Your task to perform on an android device: Open settings on Google Maps Image 0: 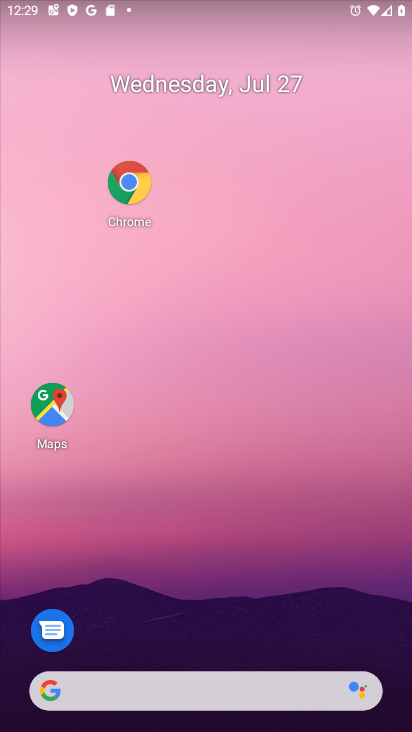
Step 0: click (51, 419)
Your task to perform on an android device: Open settings on Google Maps Image 1: 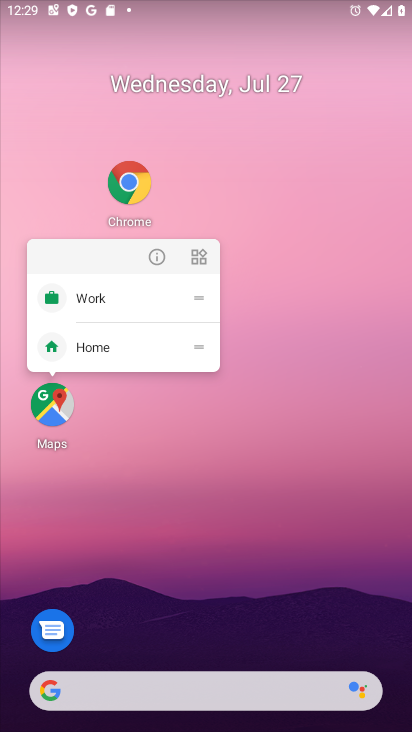
Step 1: click (51, 419)
Your task to perform on an android device: Open settings on Google Maps Image 2: 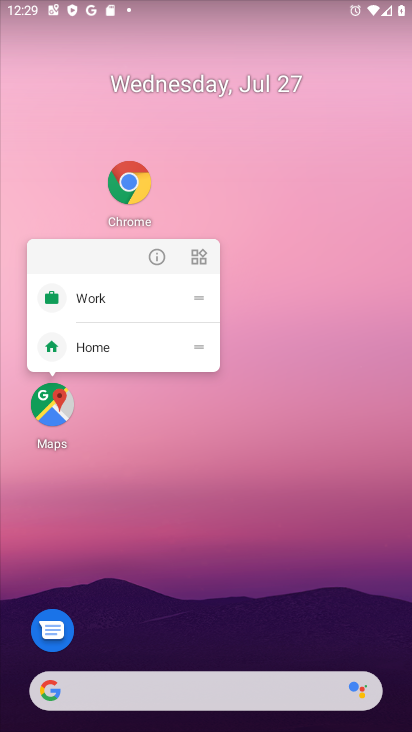
Step 2: click (51, 419)
Your task to perform on an android device: Open settings on Google Maps Image 3: 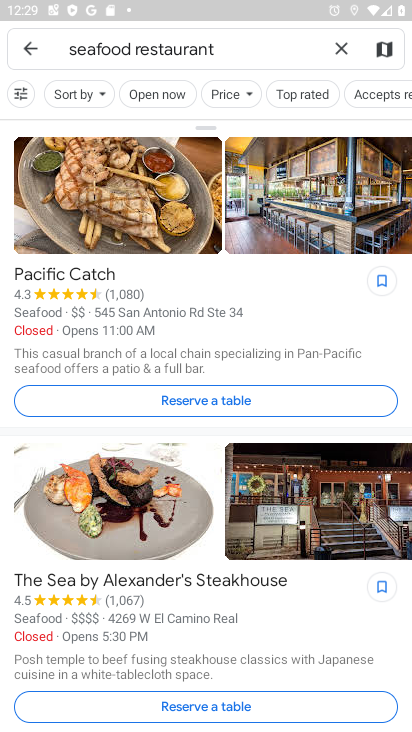
Step 3: click (334, 49)
Your task to perform on an android device: Open settings on Google Maps Image 4: 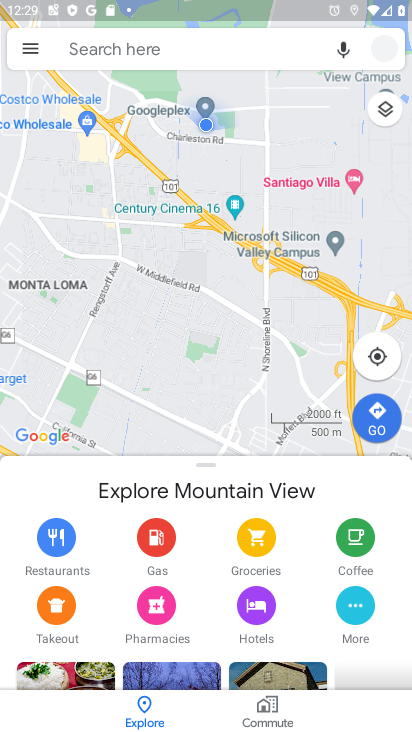
Step 4: click (25, 44)
Your task to perform on an android device: Open settings on Google Maps Image 5: 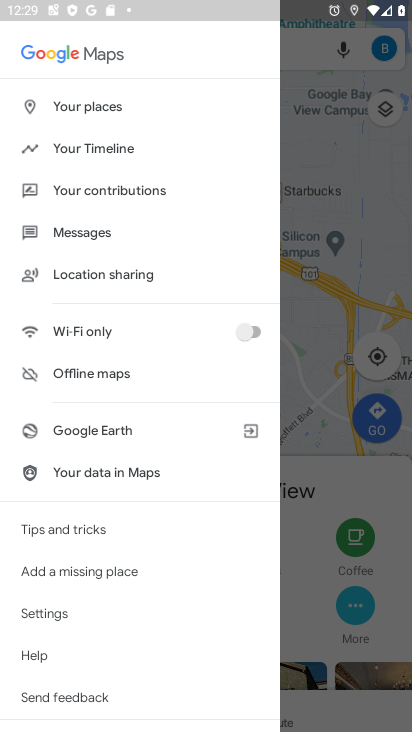
Step 5: click (77, 613)
Your task to perform on an android device: Open settings on Google Maps Image 6: 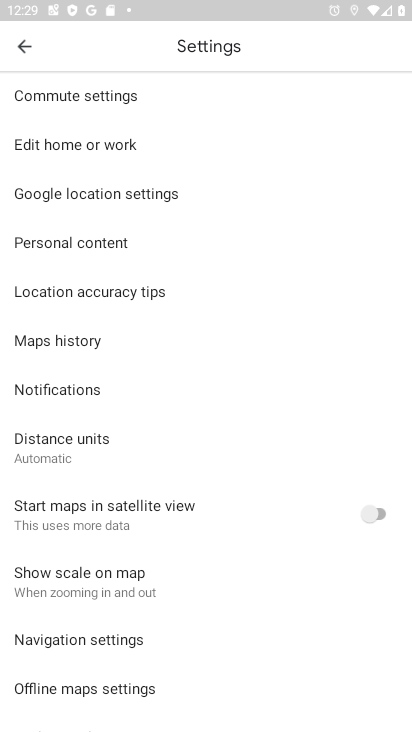
Step 6: task complete